Your task to perform on an android device: install app "Fetch Rewards" Image 0: 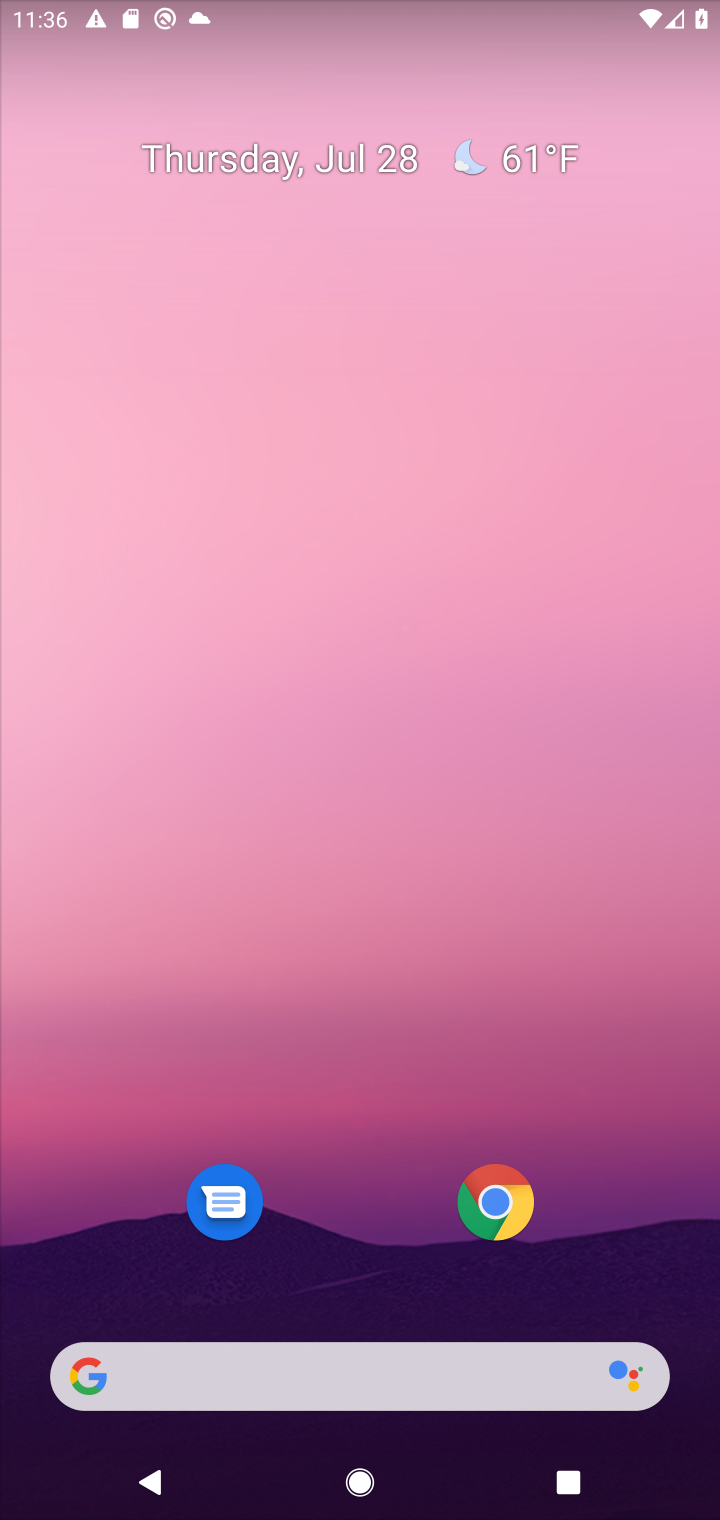
Step 0: click (373, 1372)
Your task to perform on an android device: install app "Fetch Rewards" Image 1: 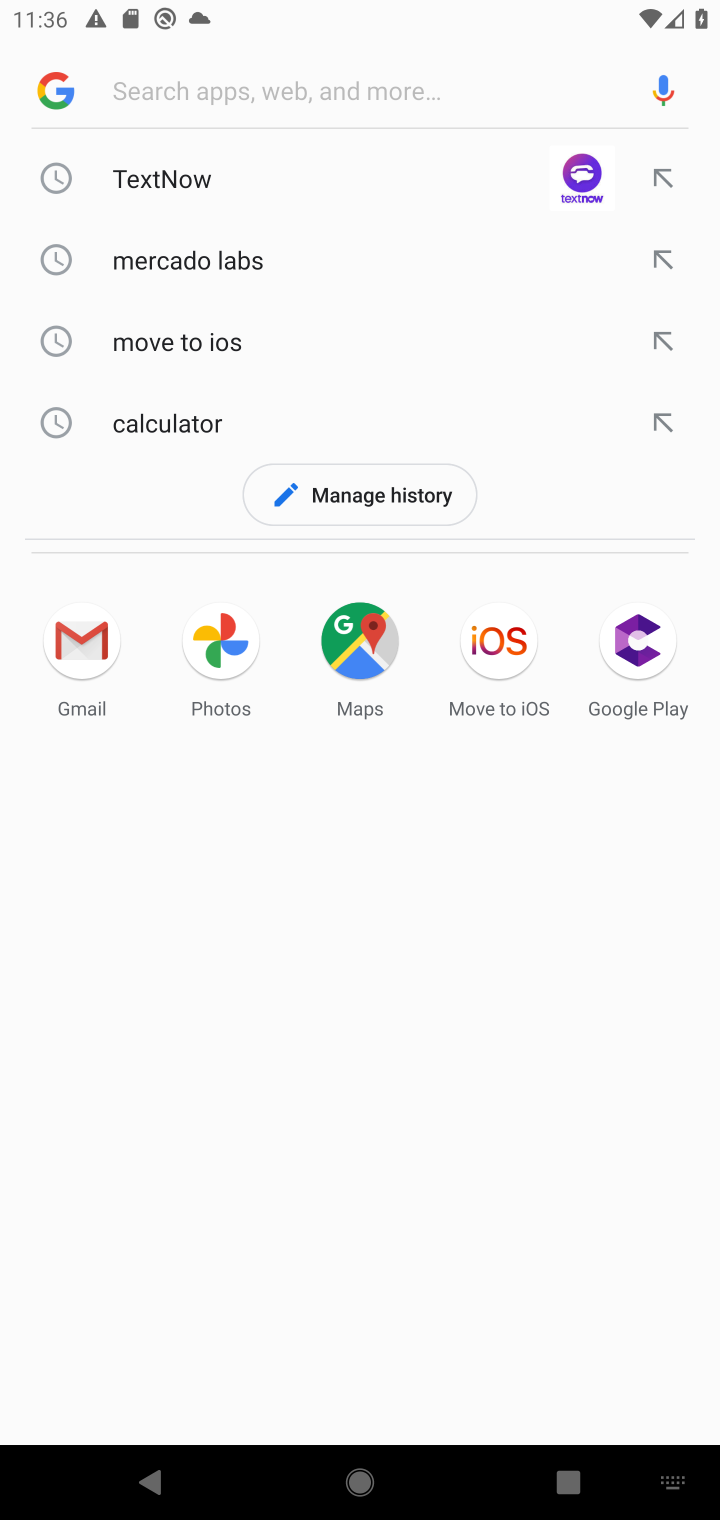
Step 1: type "fetch reward"
Your task to perform on an android device: install app "Fetch Rewards" Image 2: 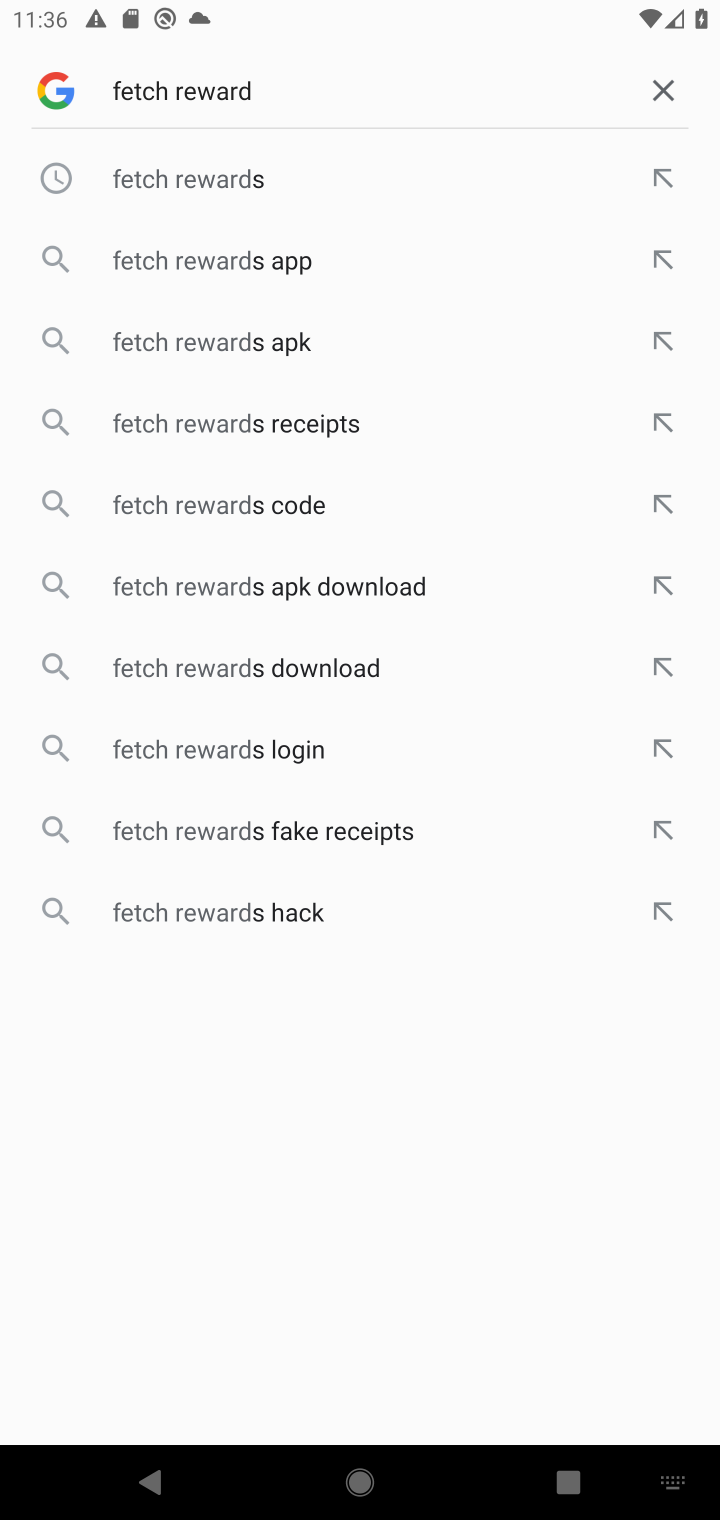
Step 2: click (367, 159)
Your task to perform on an android device: install app "Fetch Rewards" Image 3: 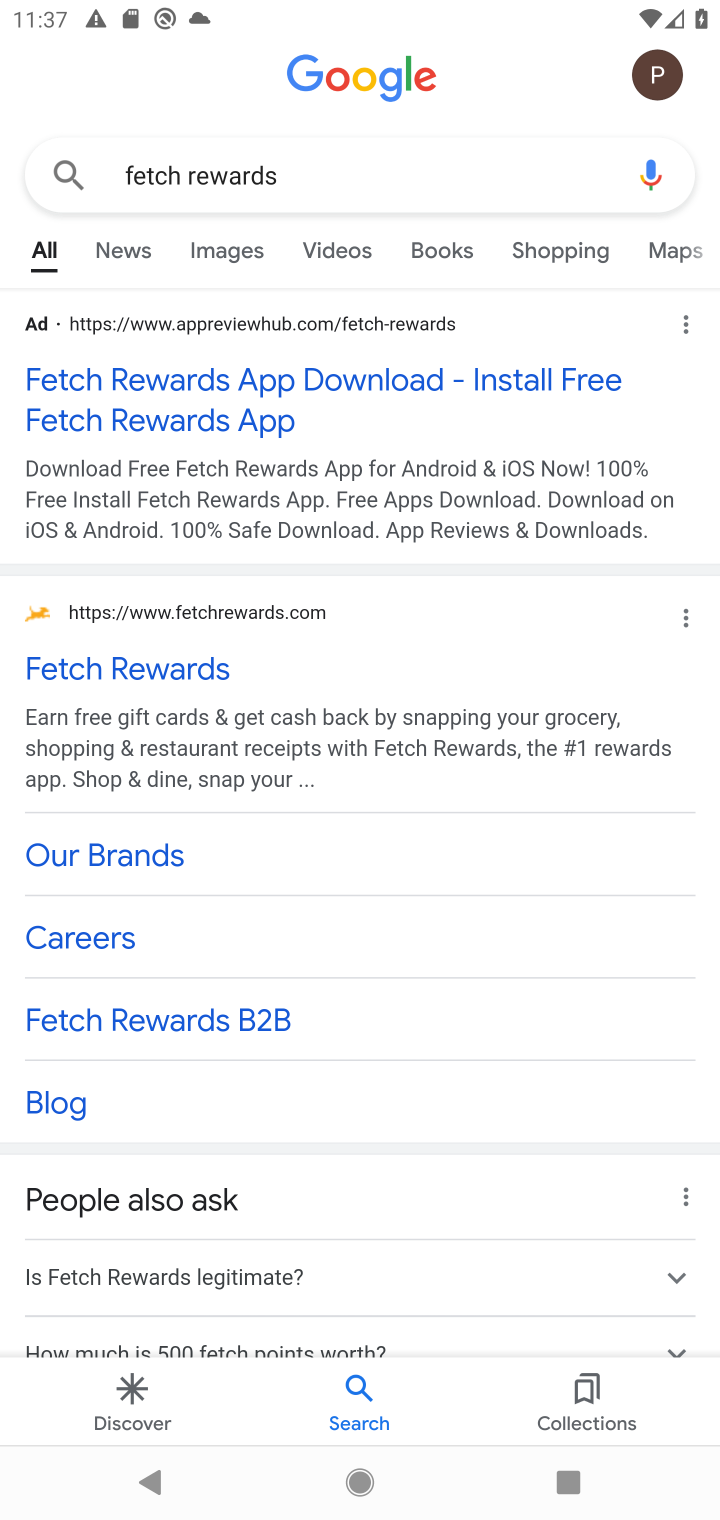
Step 3: drag from (453, 1147) to (492, 462)
Your task to perform on an android device: install app "Fetch Rewards" Image 4: 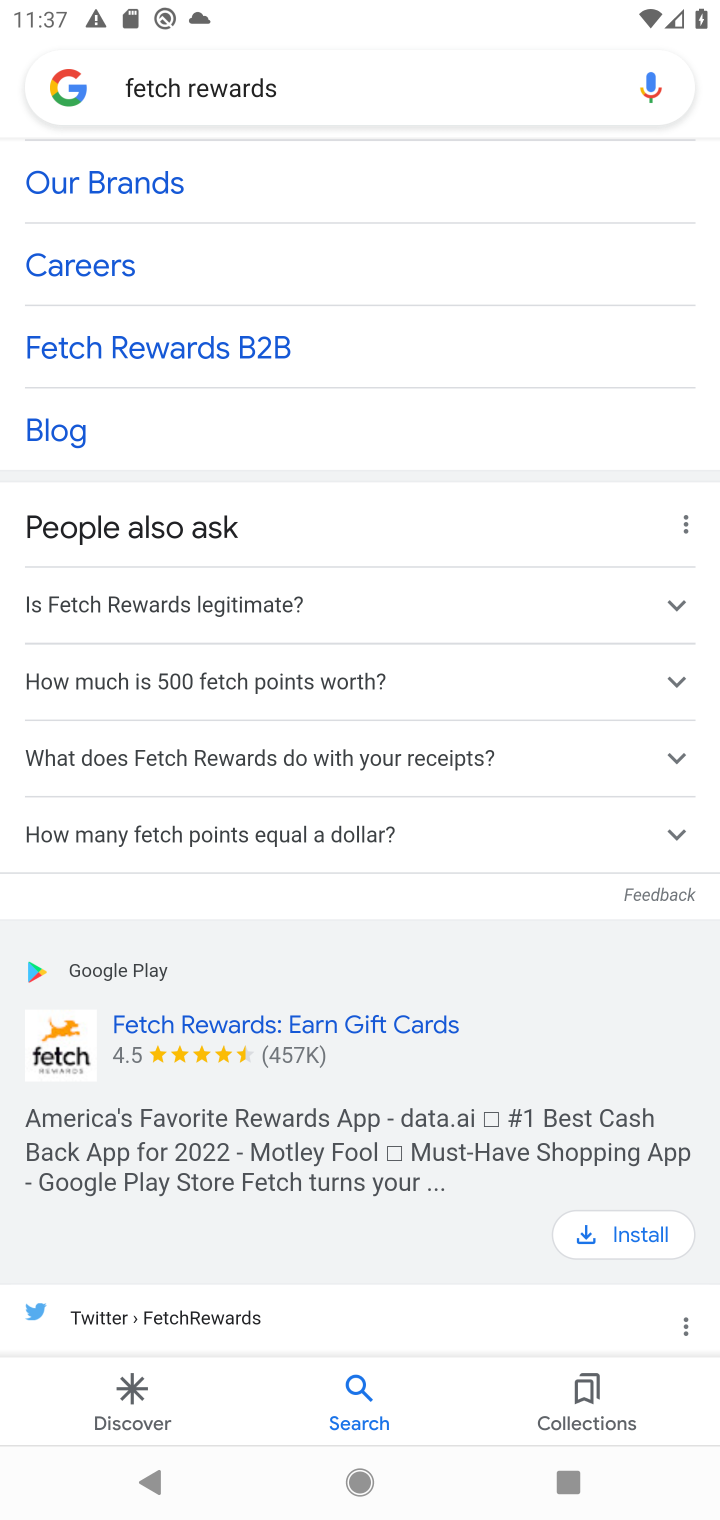
Step 4: click (616, 1244)
Your task to perform on an android device: install app "Fetch Rewards" Image 5: 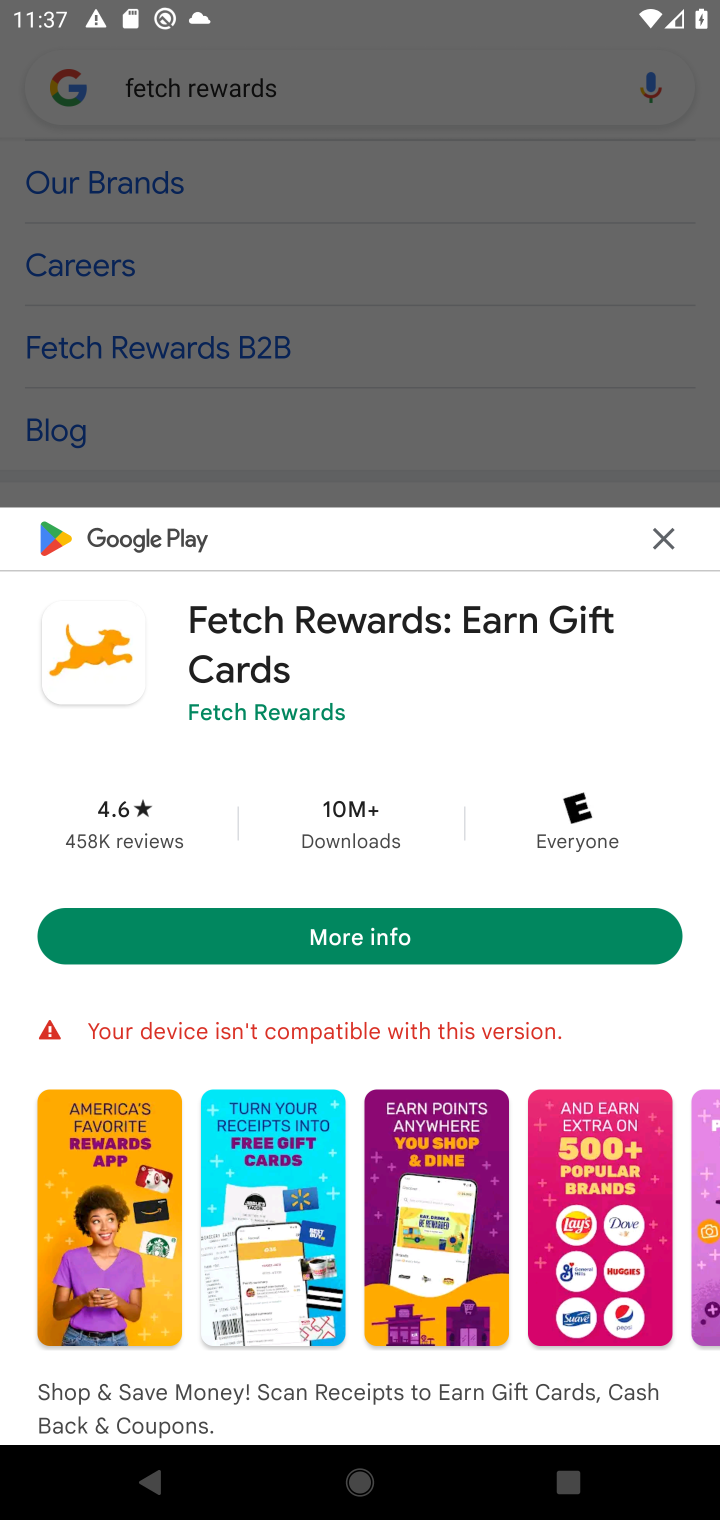
Step 5: task complete